Your task to perform on an android device: open a bookmark in the chrome app Image 0: 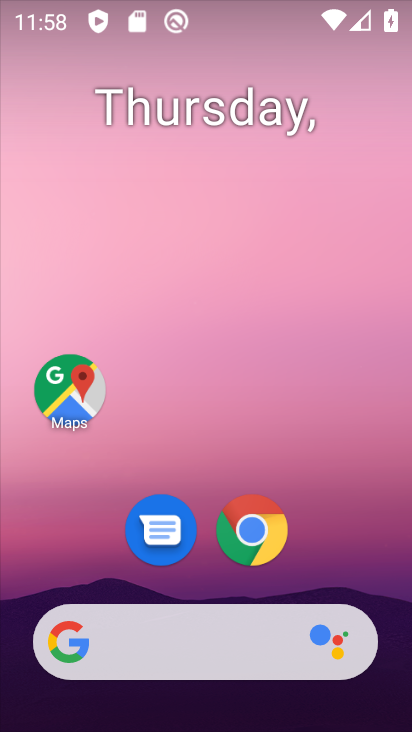
Step 0: drag from (83, 551) to (182, 148)
Your task to perform on an android device: open a bookmark in the chrome app Image 1: 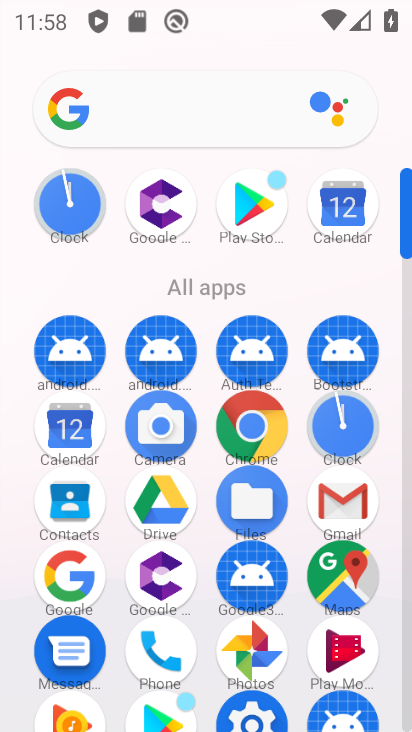
Step 1: drag from (182, 674) to (271, 371)
Your task to perform on an android device: open a bookmark in the chrome app Image 2: 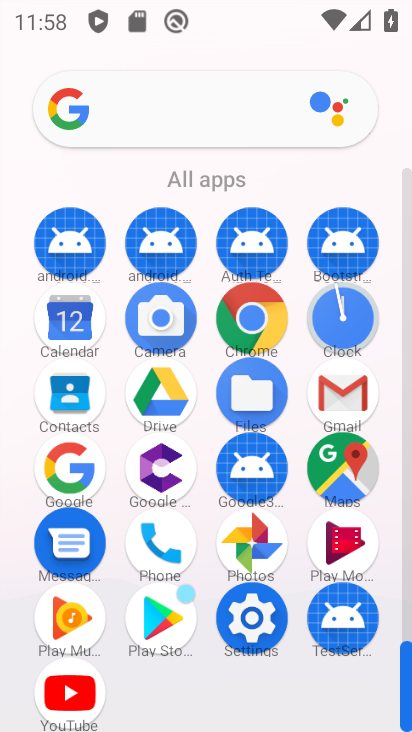
Step 2: click (250, 324)
Your task to perform on an android device: open a bookmark in the chrome app Image 3: 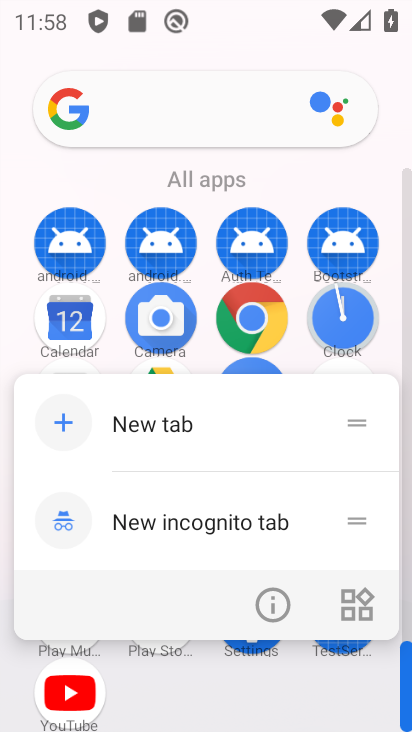
Step 3: click (261, 307)
Your task to perform on an android device: open a bookmark in the chrome app Image 4: 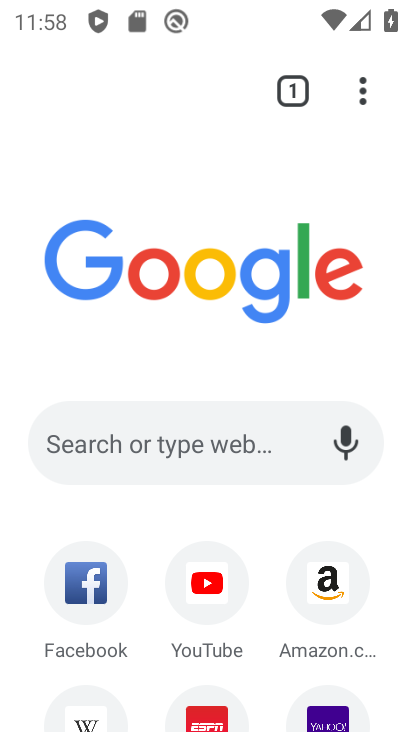
Step 4: task complete